Your task to perform on an android device: uninstall "NewsBreak: Local News & Alerts" Image 0: 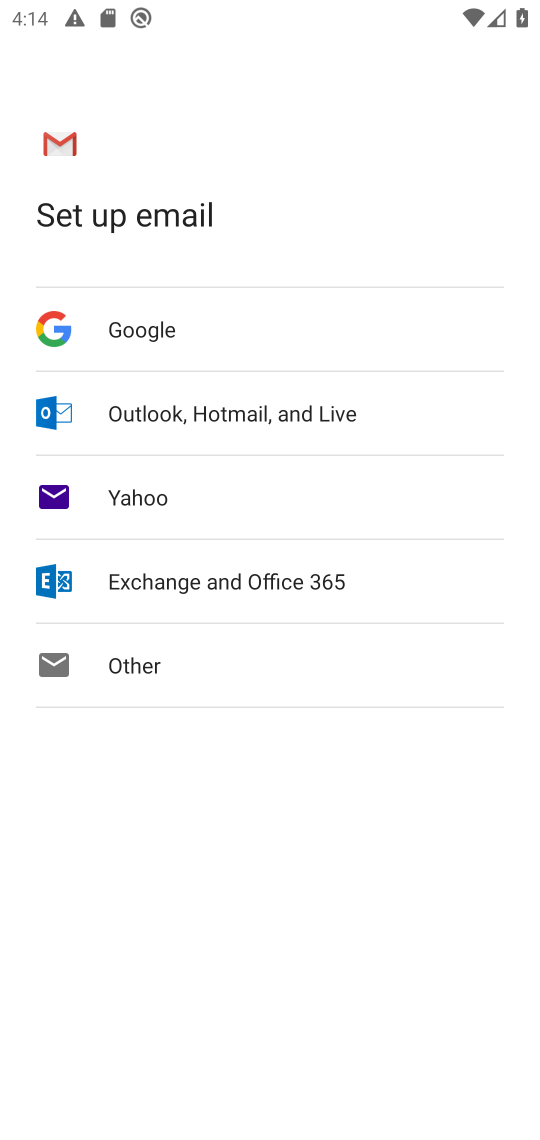
Step 0: press back button
Your task to perform on an android device: uninstall "NewsBreak: Local News & Alerts" Image 1: 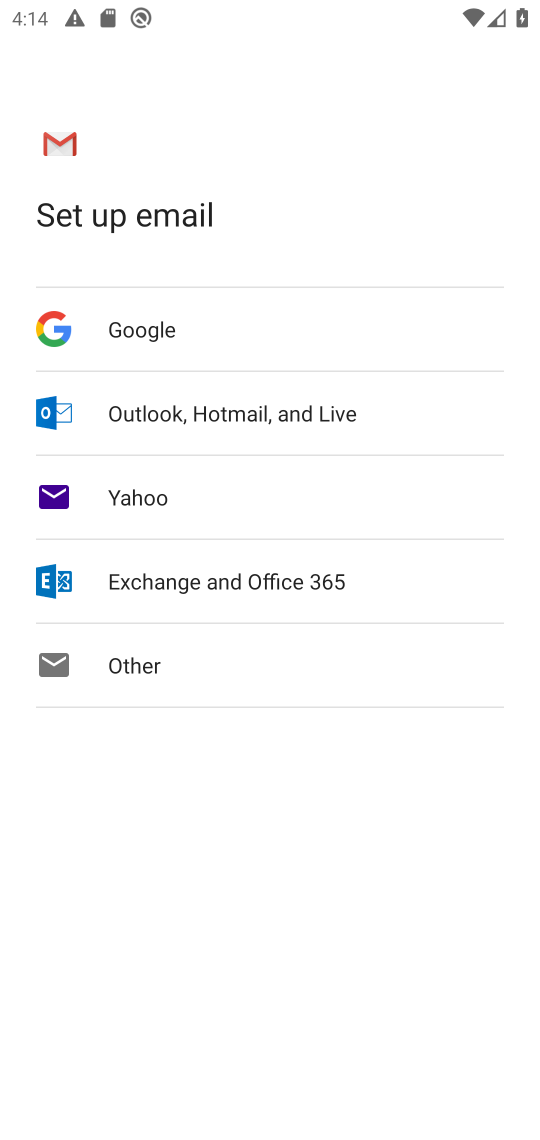
Step 1: press back button
Your task to perform on an android device: uninstall "NewsBreak: Local News & Alerts" Image 2: 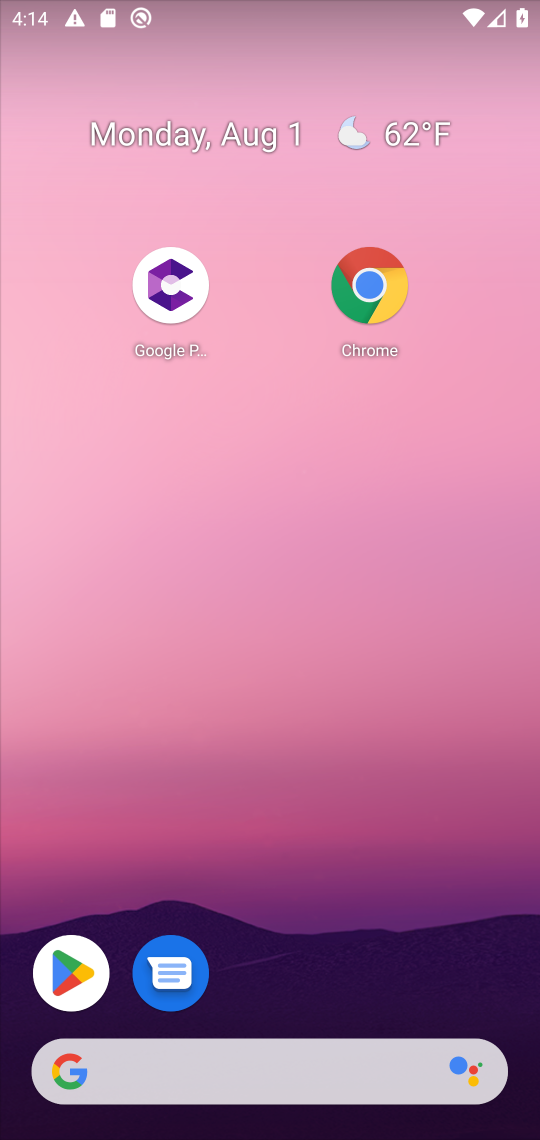
Step 2: drag from (284, 760) to (205, 249)
Your task to perform on an android device: uninstall "NewsBreak: Local News & Alerts" Image 3: 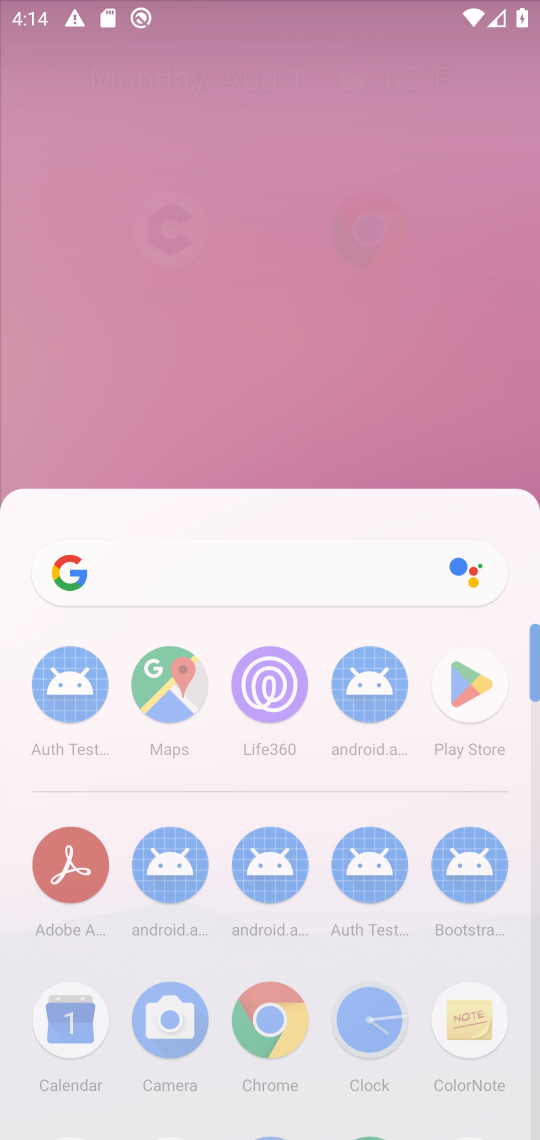
Step 3: drag from (176, 801) to (3, 191)
Your task to perform on an android device: uninstall "NewsBreak: Local News & Alerts" Image 4: 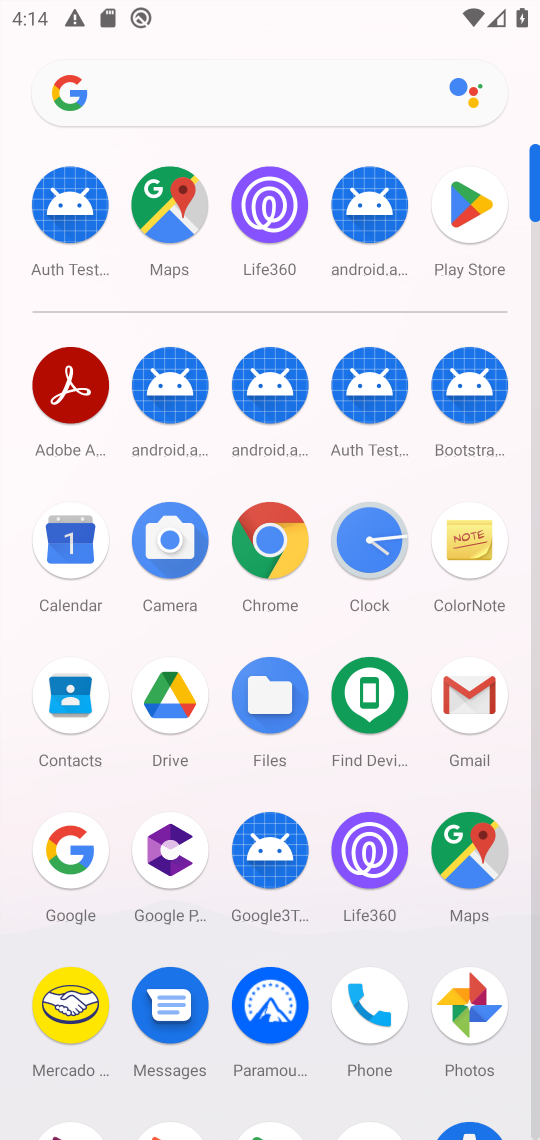
Step 4: drag from (188, 366) to (176, 135)
Your task to perform on an android device: uninstall "NewsBreak: Local News & Alerts" Image 5: 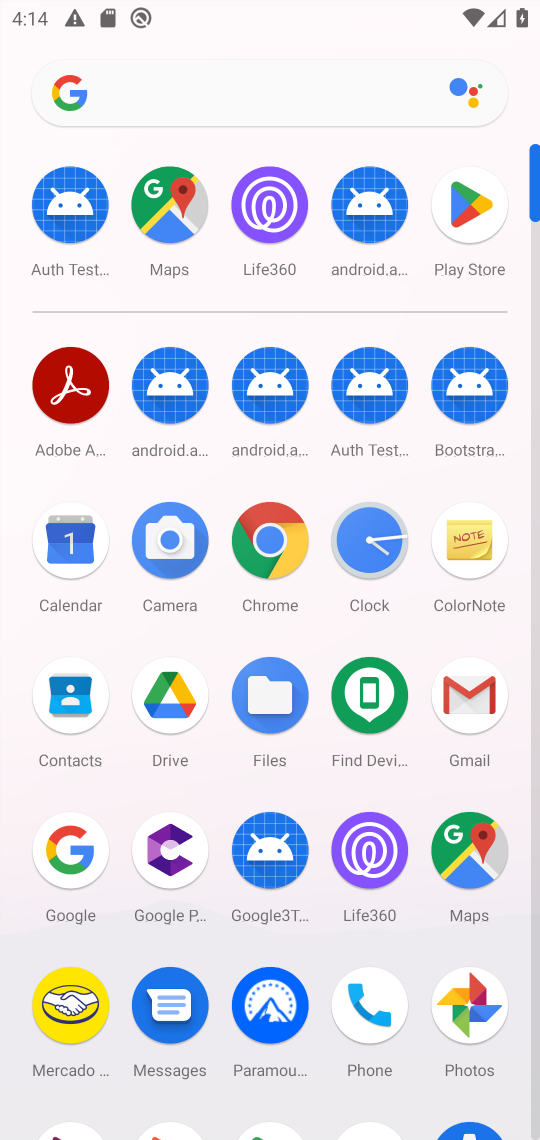
Step 5: click (468, 207)
Your task to perform on an android device: uninstall "NewsBreak: Local News & Alerts" Image 6: 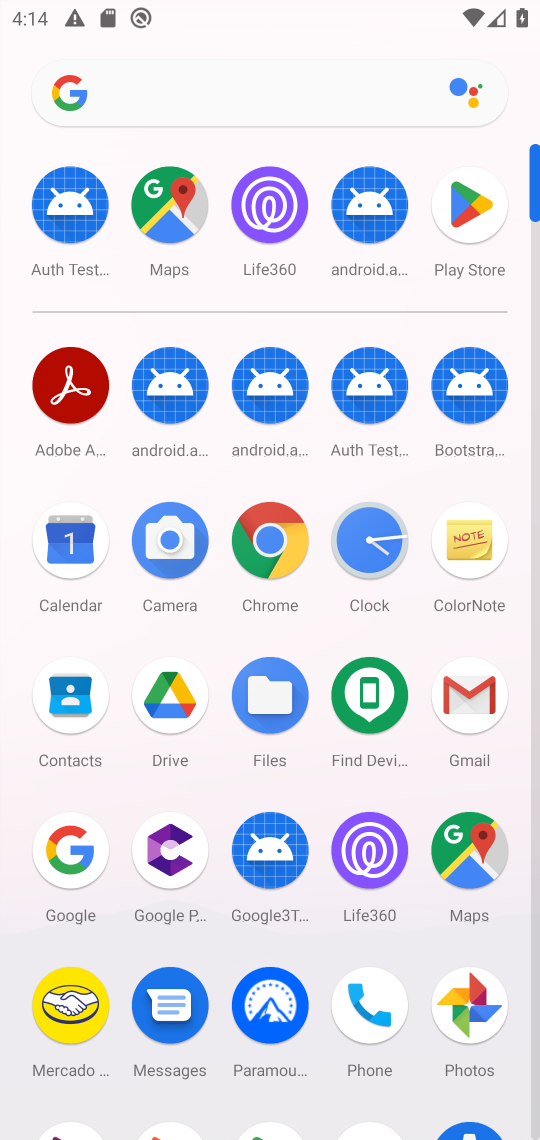
Step 6: click (464, 203)
Your task to perform on an android device: uninstall "NewsBreak: Local News & Alerts" Image 7: 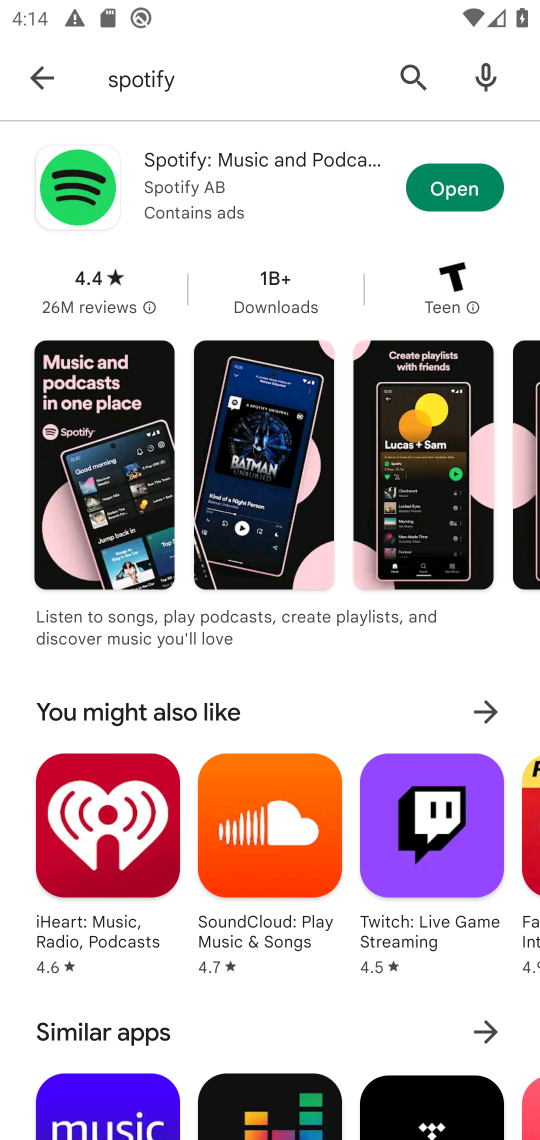
Step 7: click (180, 88)
Your task to perform on an android device: uninstall "NewsBreak: Local News & Alerts" Image 8: 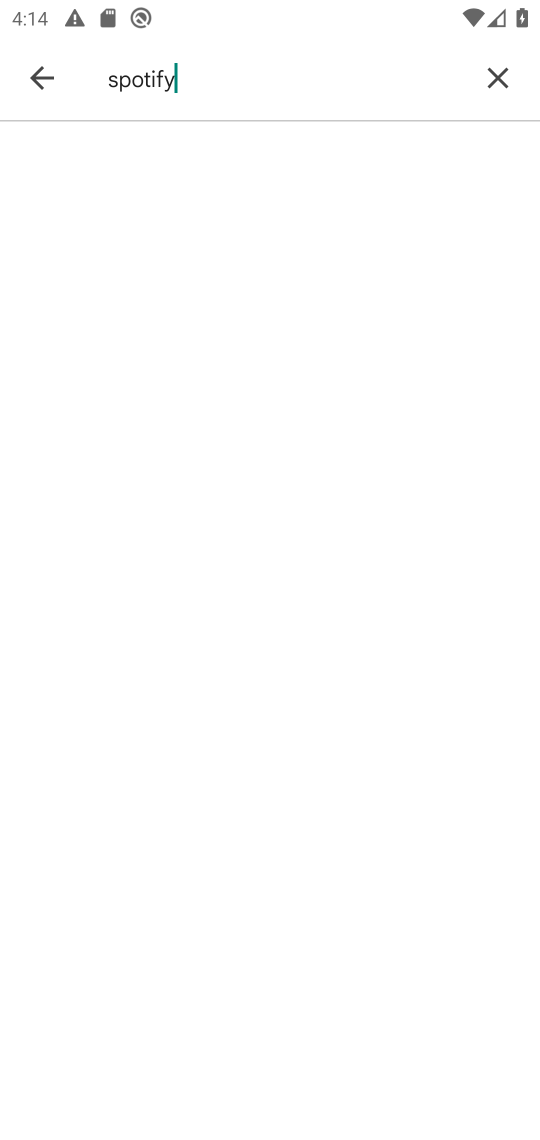
Step 8: click (47, 87)
Your task to perform on an android device: uninstall "NewsBreak: Local News & Alerts" Image 9: 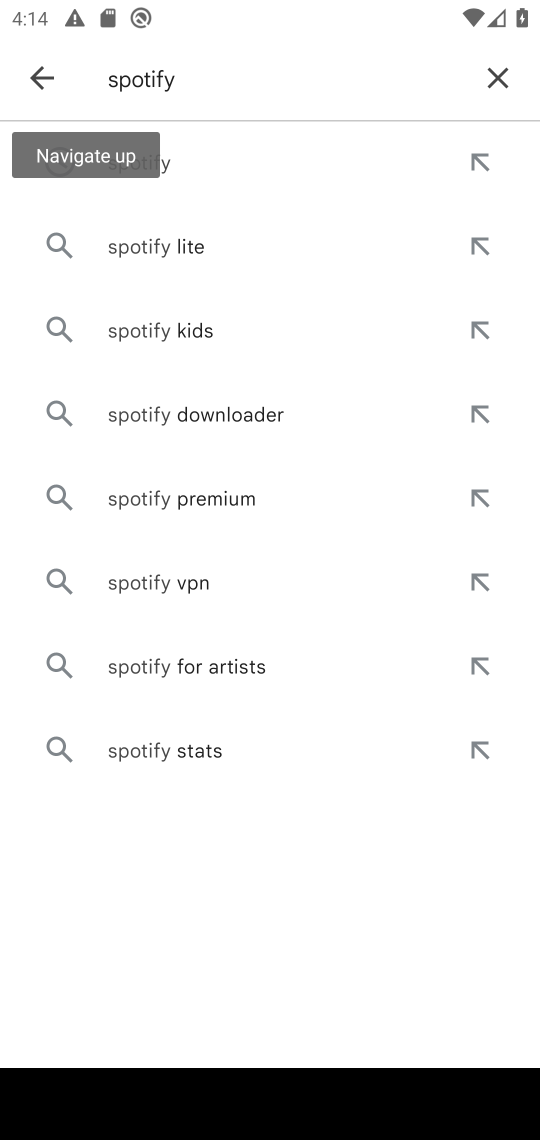
Step 9: click (487, 74)
Your task to perform on an android device: uninstall "NewsBreak: Local News & Alerts" Image 10: 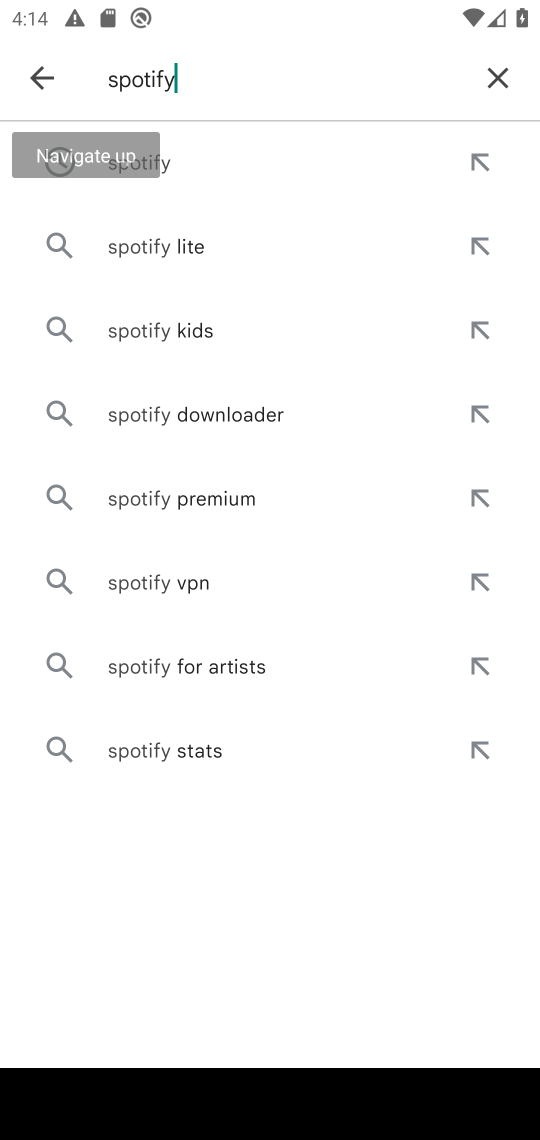
Step 10: click (489, 81)
Your task to perform on an android device: uninstall "NewsBreak: Local News & Alerts" Image 11: 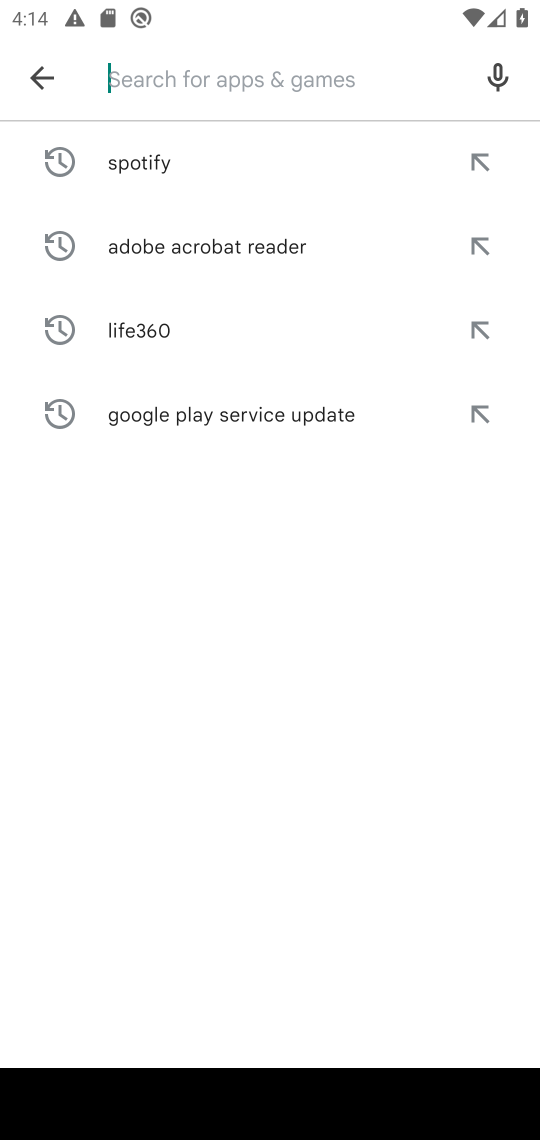
Step 11: click (489, 81)
Your task to perform on an android device: uninstall "NewsBreak: Local News & Alerts" Image 12: 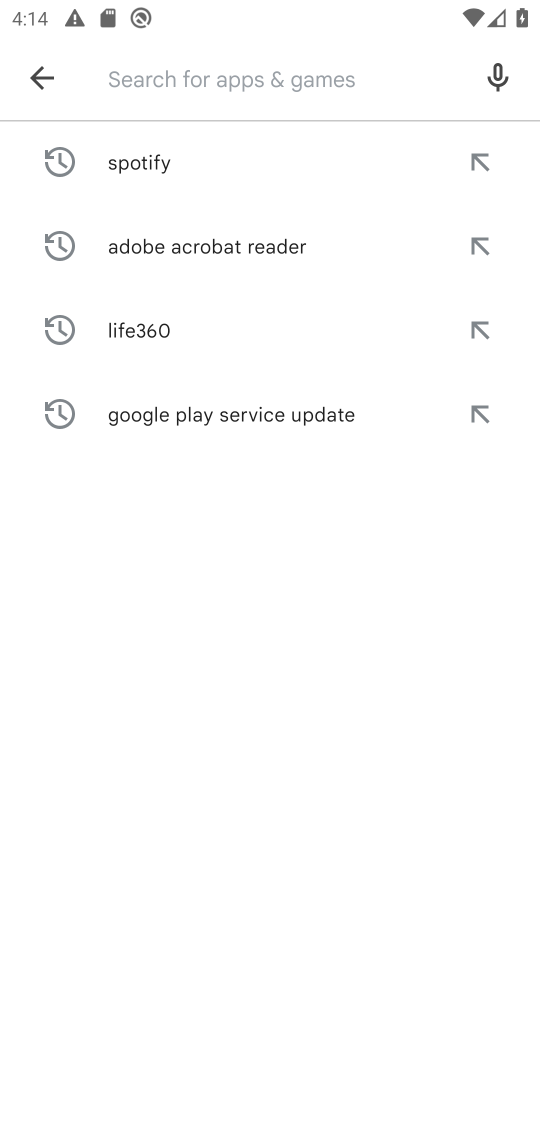
Step 12: click (490, 82)
Your task to perform on an android device: uninstall "NewsBreak: Local News & Alerts" Image 13: 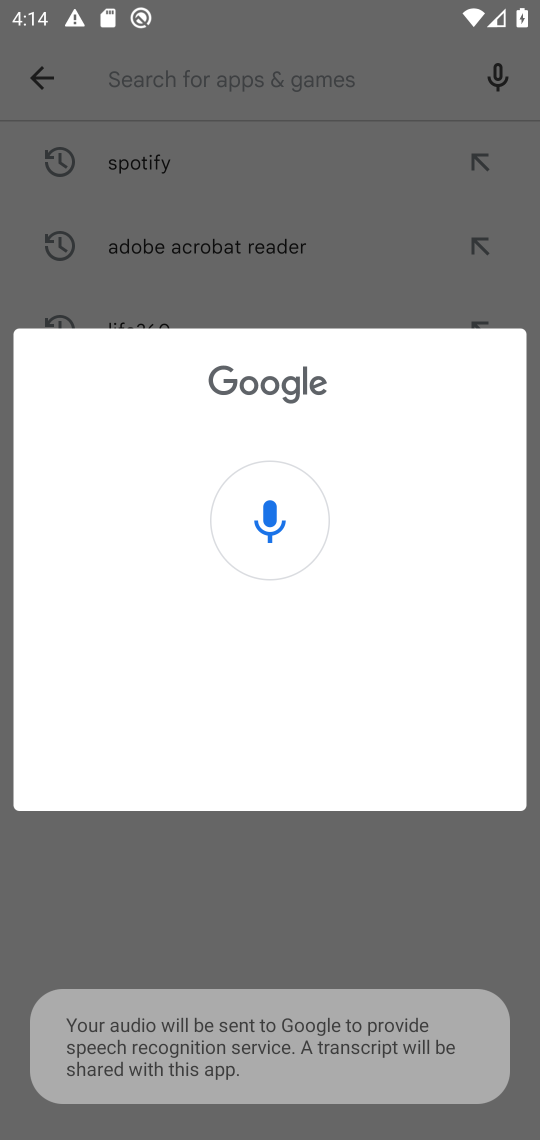
Step 13: drag from (139, 79) to (52, 83)
Your task to perform on an android device: uninstall "NewsBreak: Local News & Alerts" Image 14: 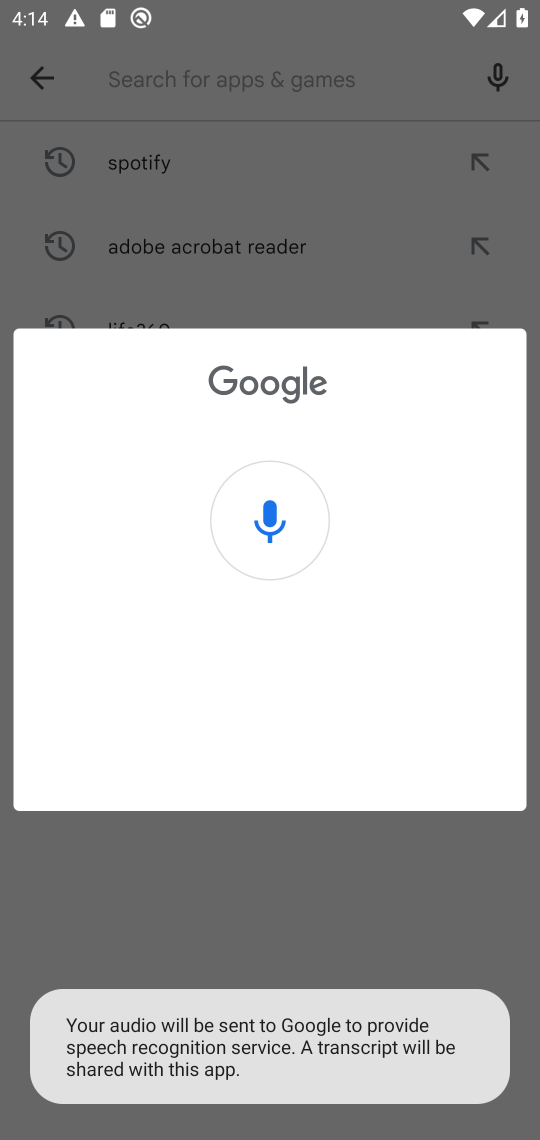
Step 14: click (123, 69)
Your task to perform on an android device: uninstall "NewsBreak: Local News & Alerts" Image 15: 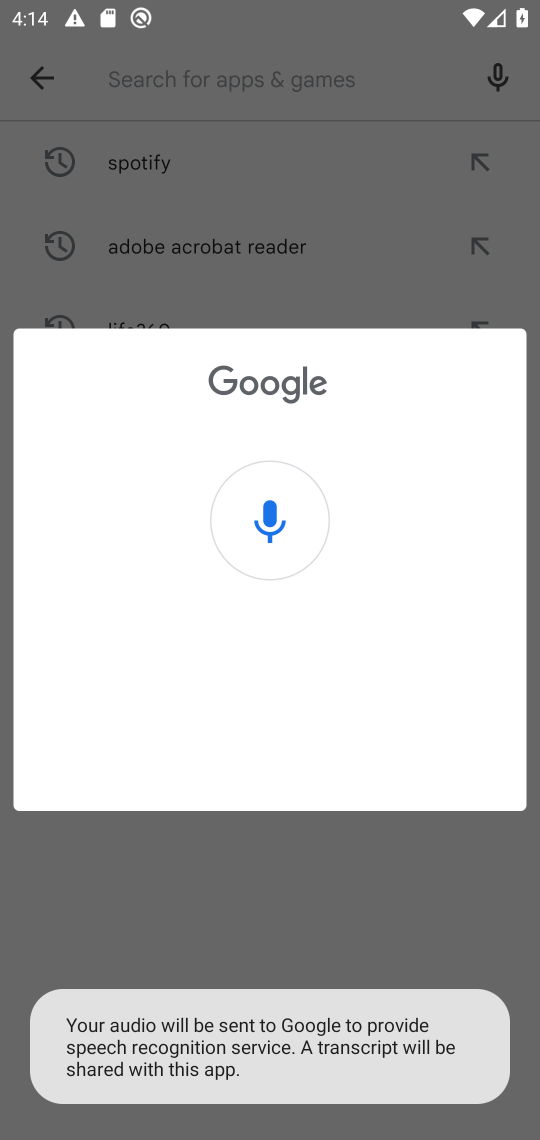
Step 15: click (123, 69)
Your task to perform on an android device: uninstall "NewsBreak: Local News & Alerts" Image 16: 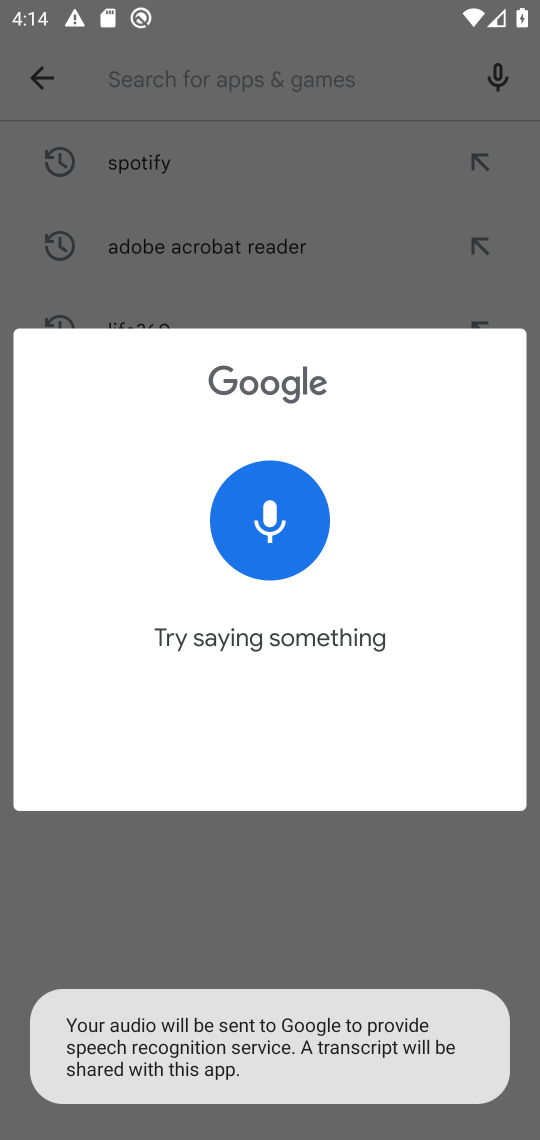
Step 16: click (130, 66)
Your task to perform on an android device: uninstall "NewsBreak: Local News & Alerts" Image 17: 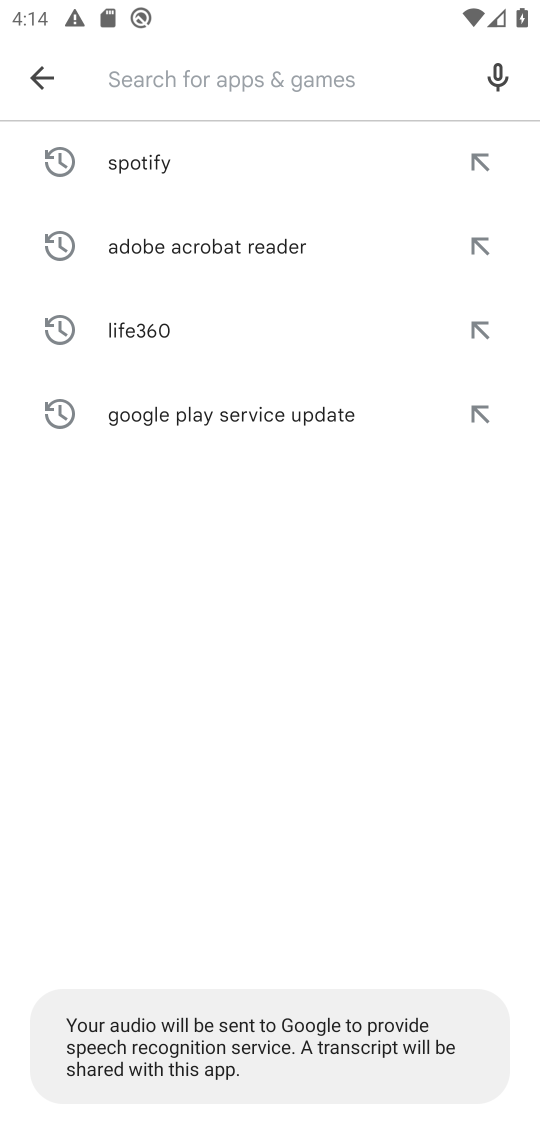
Step 17: click (146, 83)
Your task to perform on an android device: uninstall "NewsBreak: Local News & Alerts" Image 18: 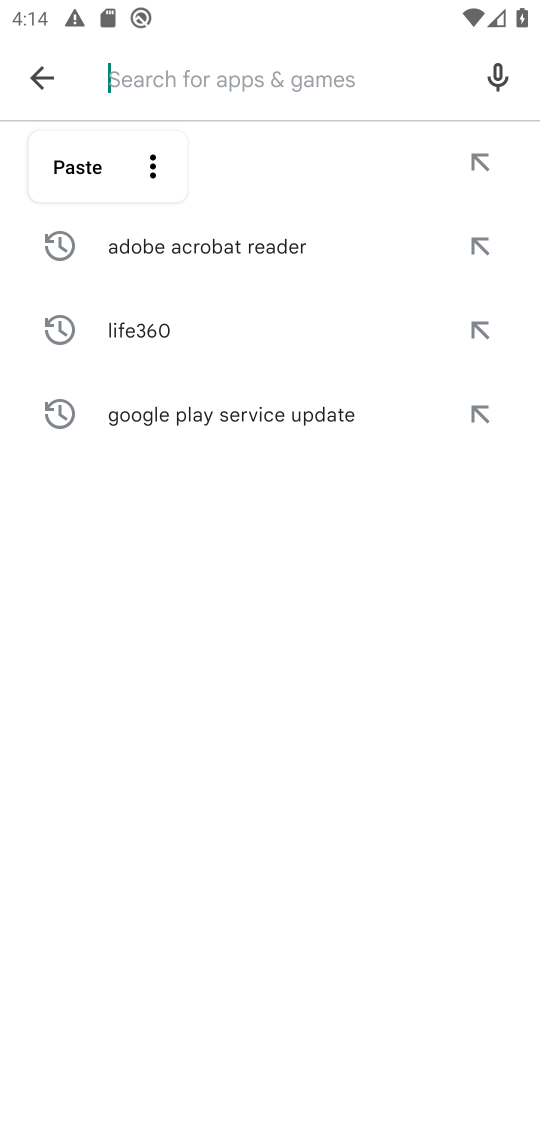
Step 18: type "news break"
Your task to perform on an android device: uninstall "NewsBreak: Local News & Alerts" Image 19: 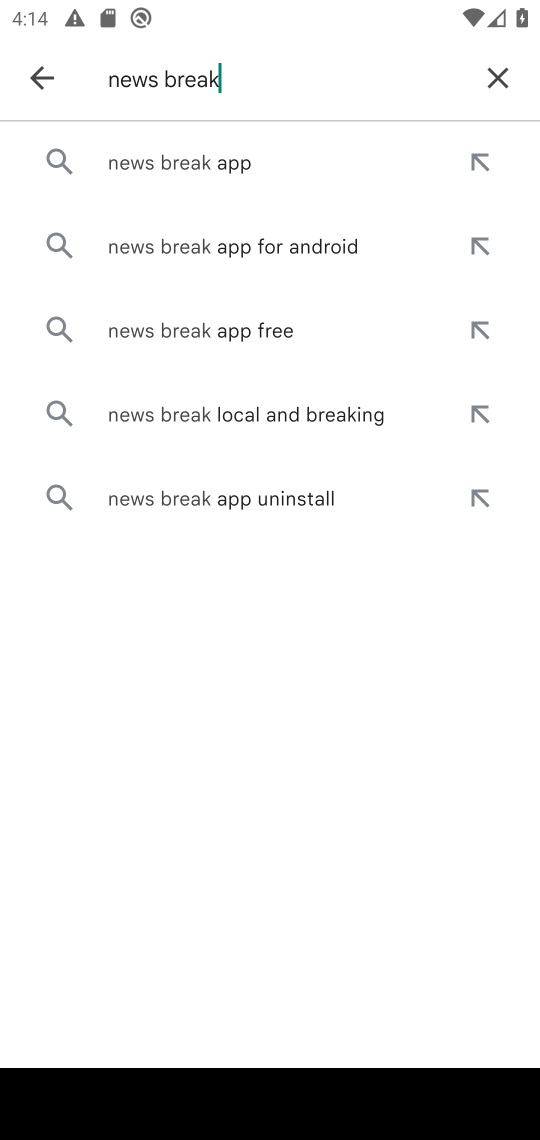
Step 19: click (211, 171)
Your task to perform on an android device: uninstall "NewsBreak: Local News & Alerts" Image 20: 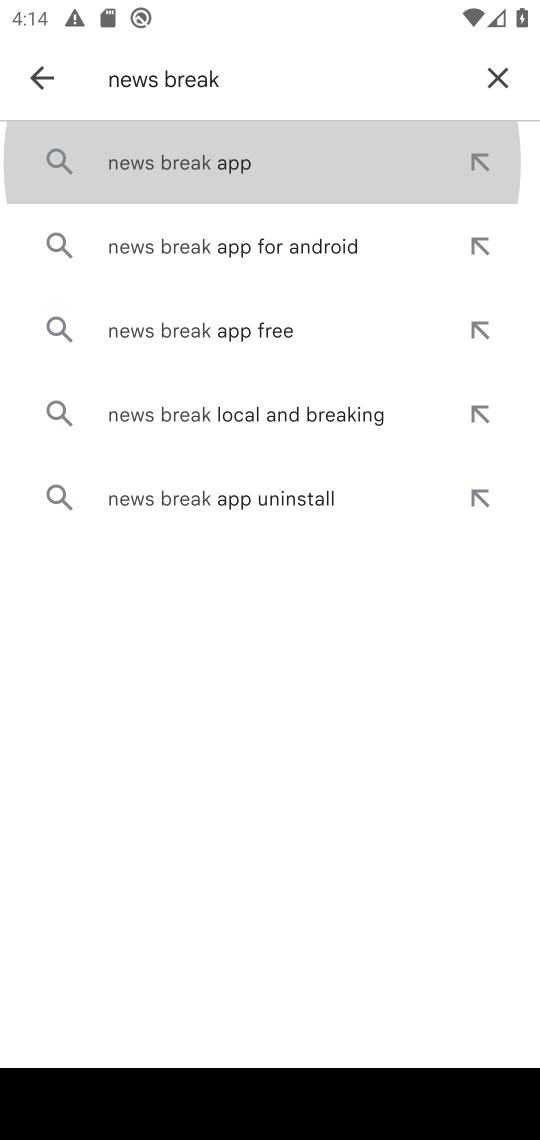
Step 20: click (213, 168)
Your task to perform on an android device: uninstall "NewsBreak: Local News & Alerts" Image 21: 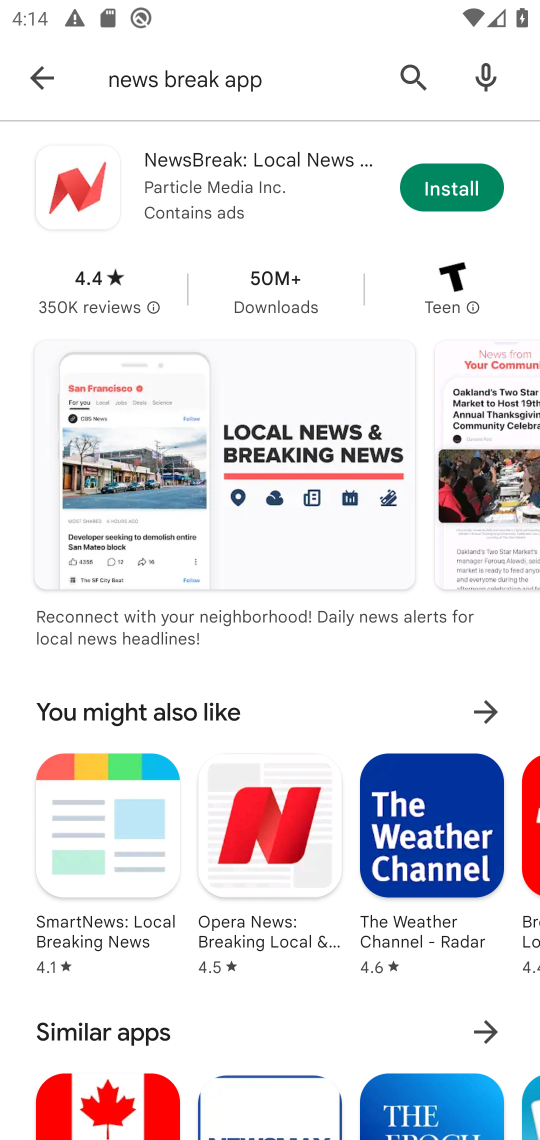
Step 21: click (453, 195)
Your task to perform on an android device: uninstall "NewsBreak: Local News & Alerts" Image 22: 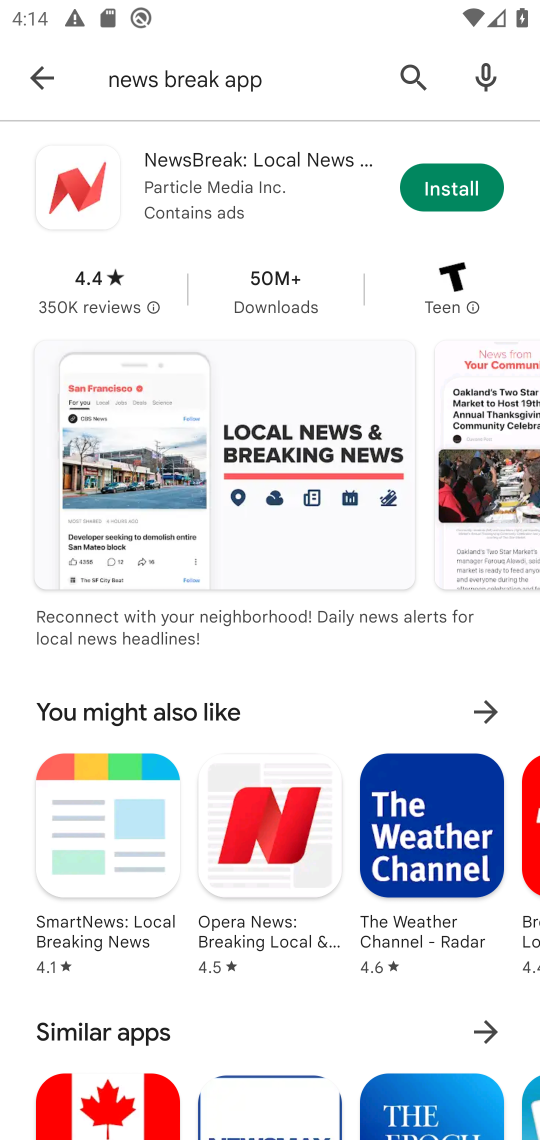
Step 22: click (449, 201)
Your task to perform on an android device: uninstall "NewsBreak: Local News & Alerts" Image 23: 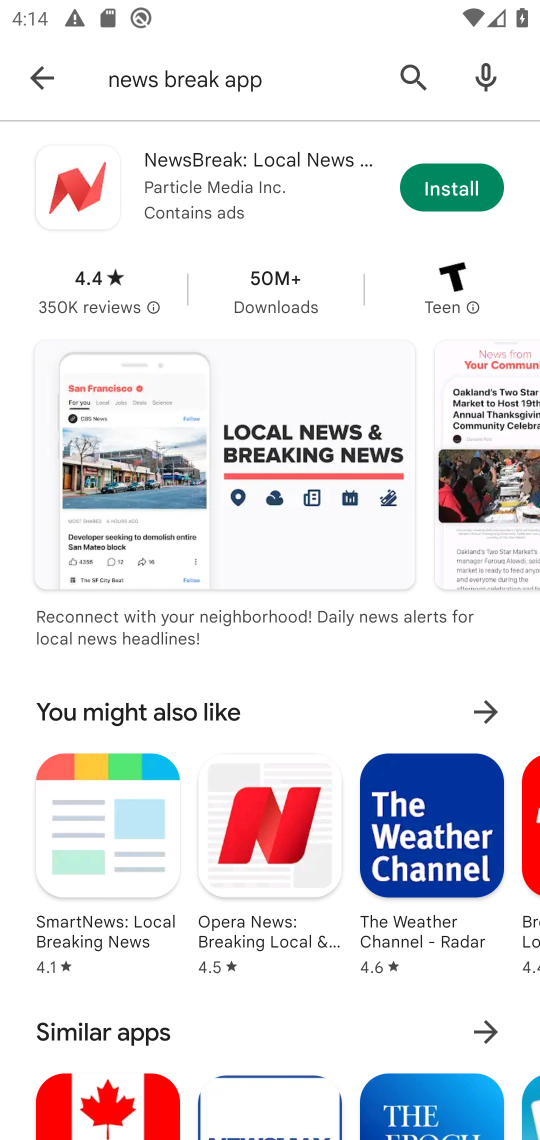
Step 23: click (443, 186)
Your task to perform on an android device: uninstall "NewsBreak: Local News & Alerts" Image 24: 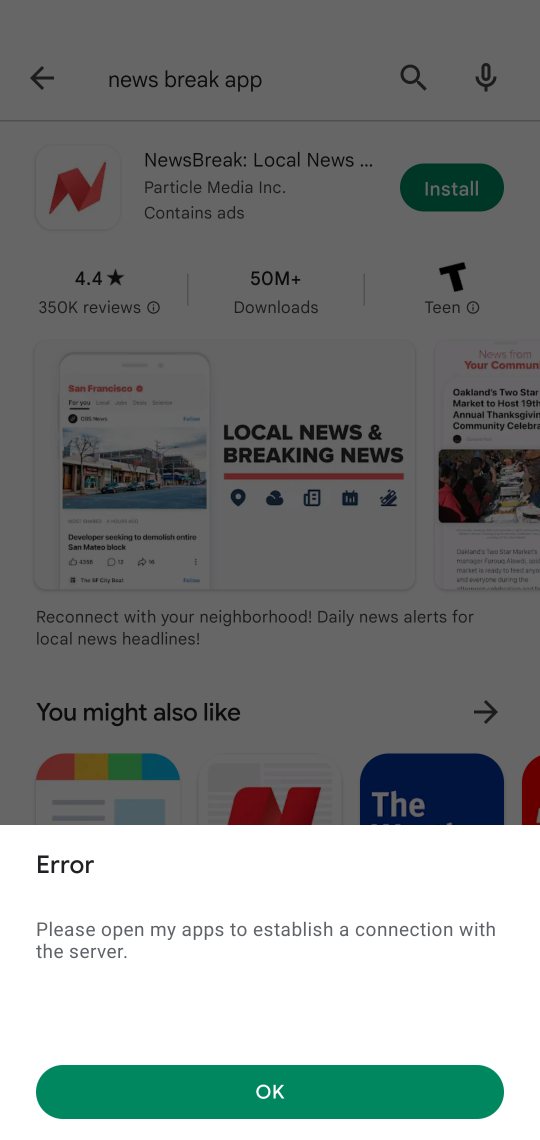
Step 24: click (275, 1092)
Your task to perform on an android device: uninstall "NewsBreak: Local News & Alerts" Image 25: 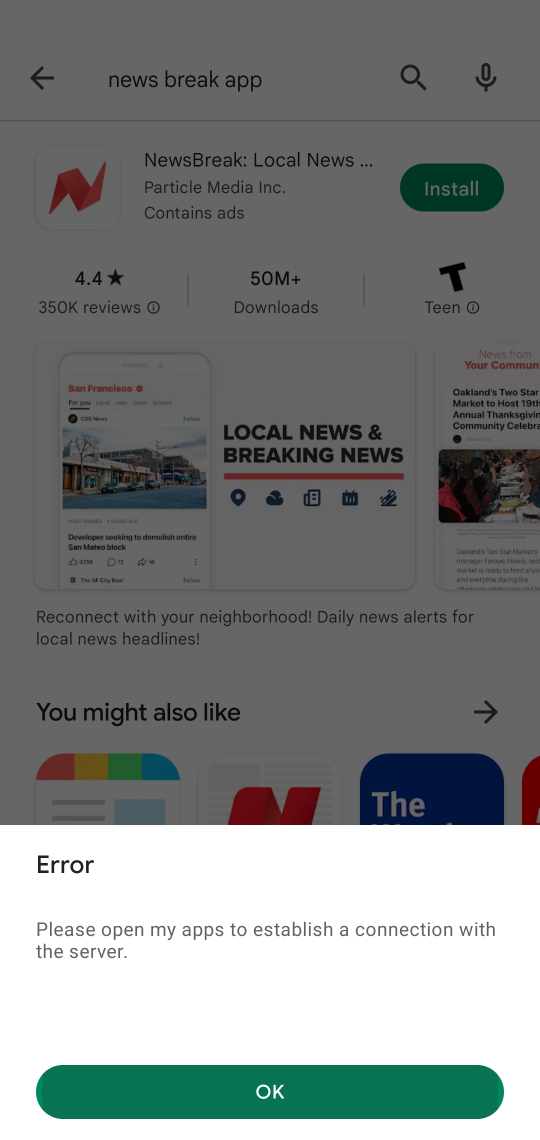
Step 25: click (282, 1090)
Your task to perform on an android device: uninstall "NewsBreak: Local News & Alerts" Image 26: 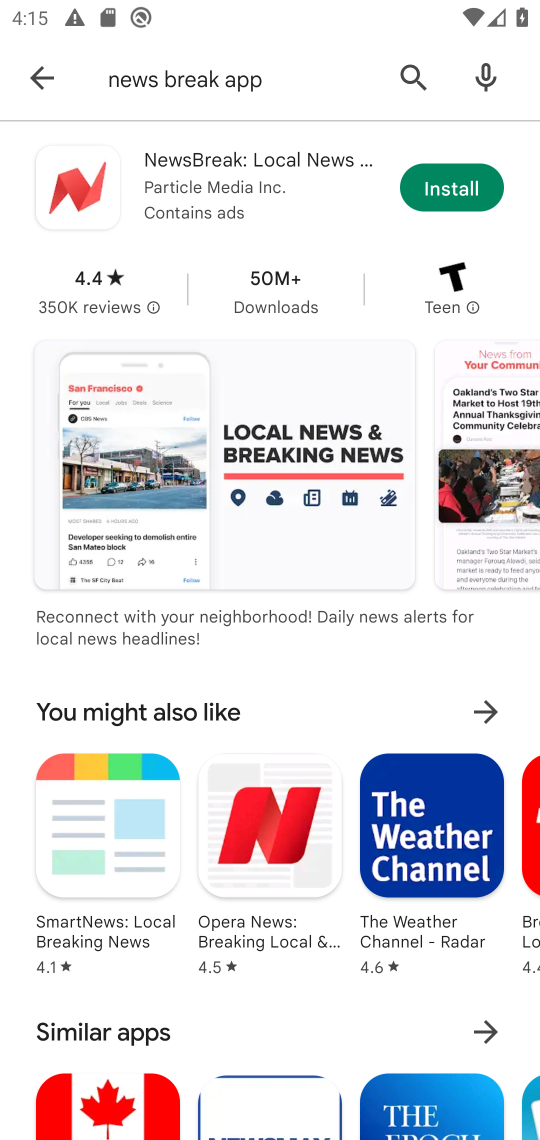
Step 26: click (282, 1090)
Your task to perform on an android device: uninstall "NewsBreak: Local News & Alerts" Image 27: 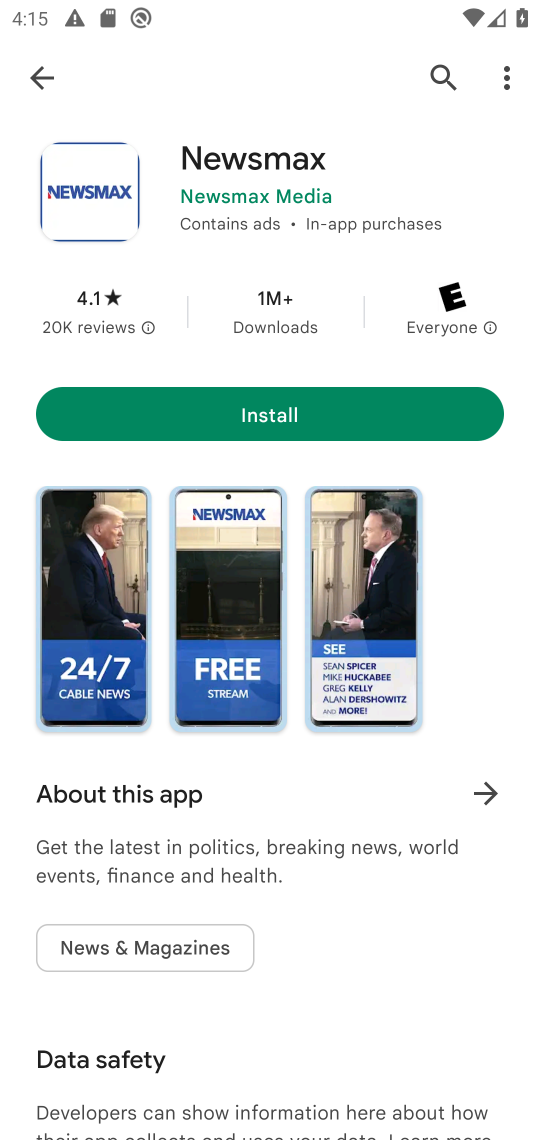
Step 27: click (274, 428)
Your task to perform on an android device: uninstall "NewsBreak: Local News & Alerts" Image 28: 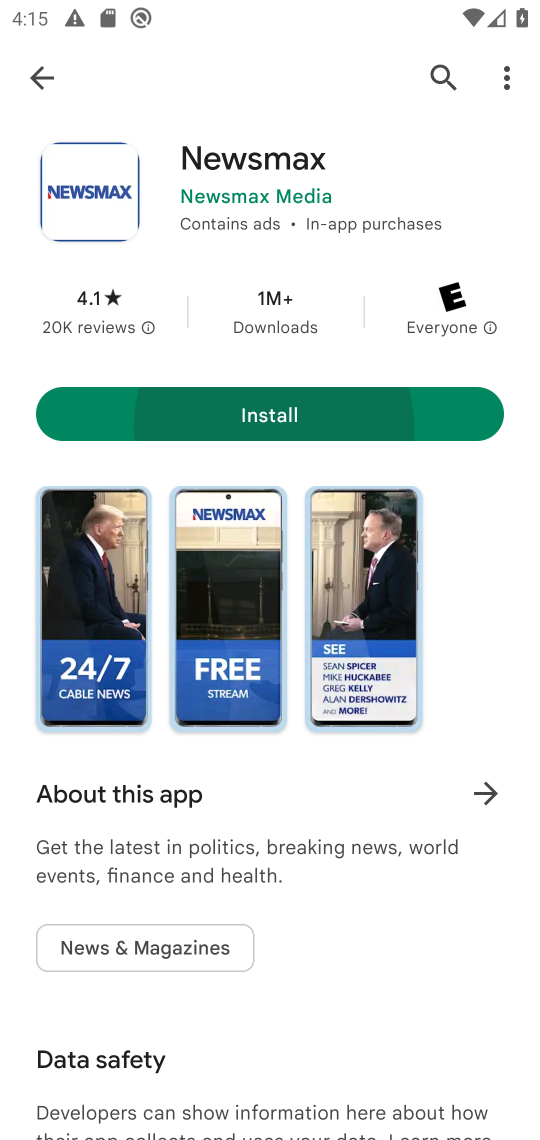
Step 28: click (273, 430)
Your task to perform on an android device: uninstall "NewsBreak: Local News & Alerts" Image 29: 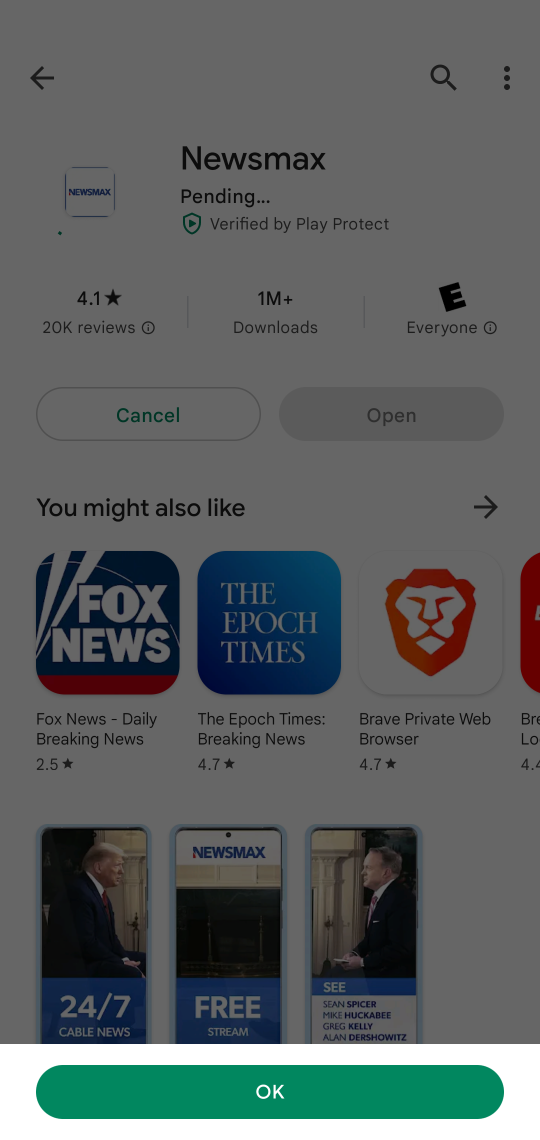
Step 29: click (31, 64)
Your task to perform on an android device: uninstall "NewsBreak: Local News & Alerts" Image 30: 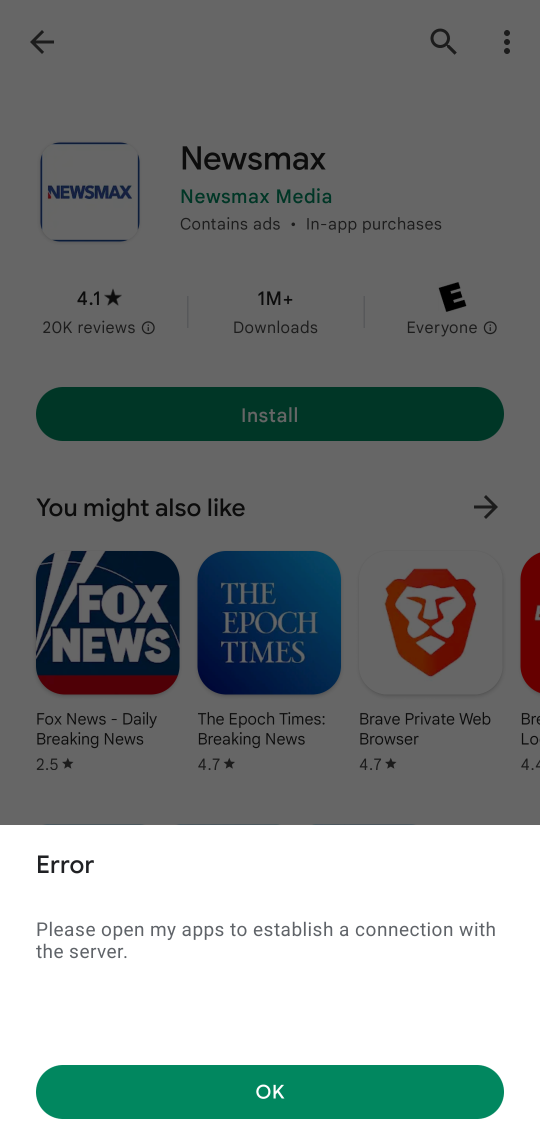
Step 30: click (153, 414)
Your task to perform on an android device: uninstall "NewsBreak: Local News & Alerts" Image 31: 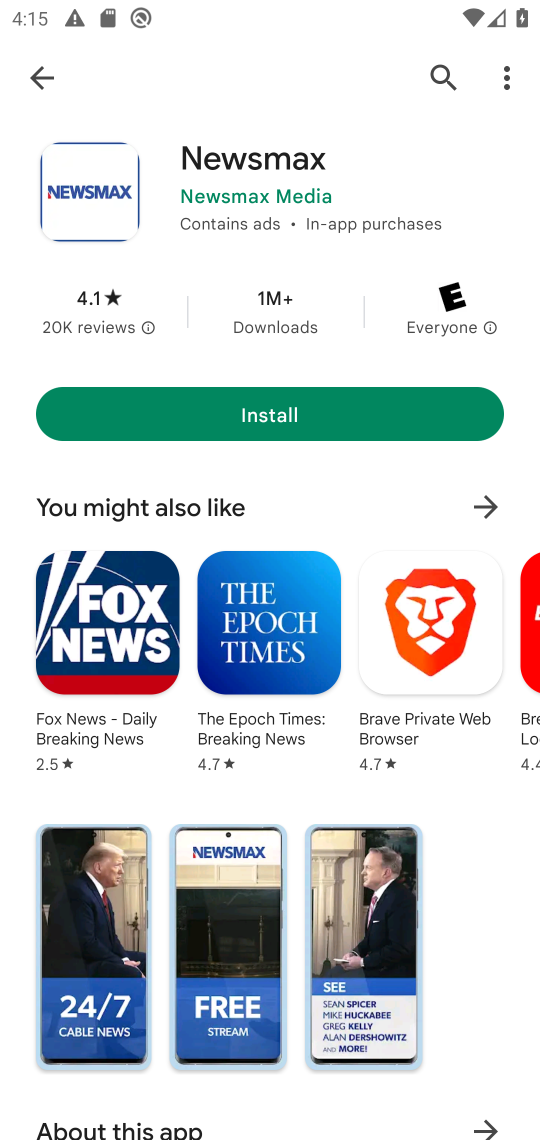
Step 31: click (151, 415)
Your task to perform on an android device: uninstall "NewsBreak: Local News & Alerts" Image 32: 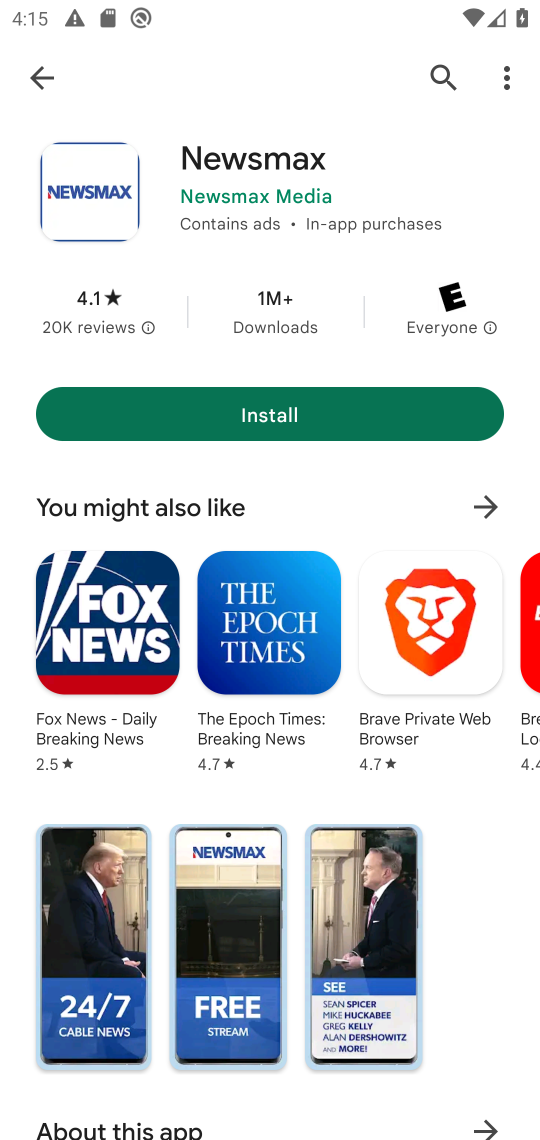
Step 32: click (151, 415)
Your task to perform on an android device: uninstall "NewsBreak: Local News & Alerts" Image 33: 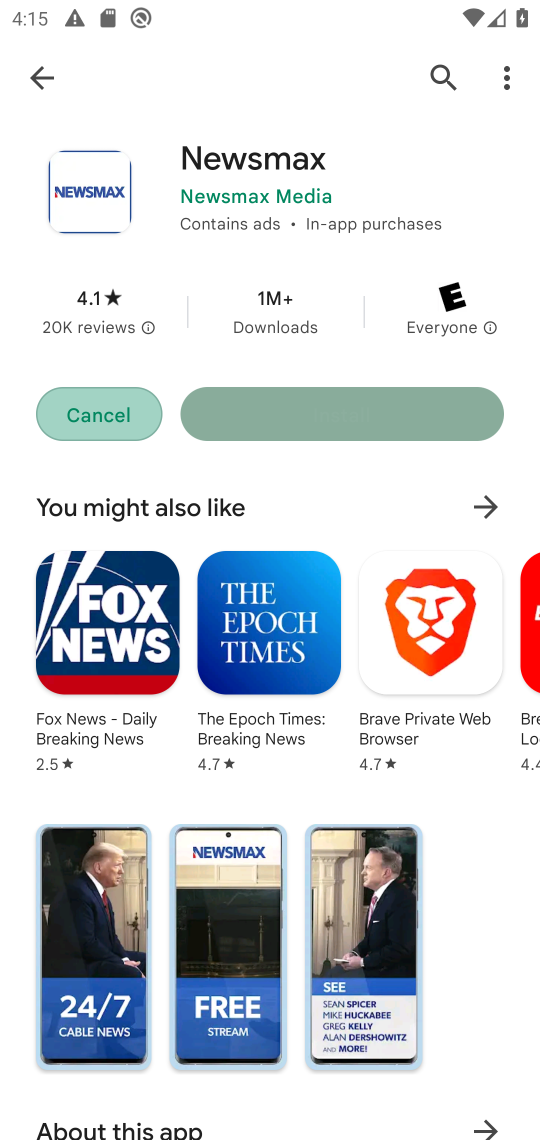
Step 33: click (37, 75)
Your task to perform on an android device: uninstall "NewsBreak: Local News & Alerts" Image 34: 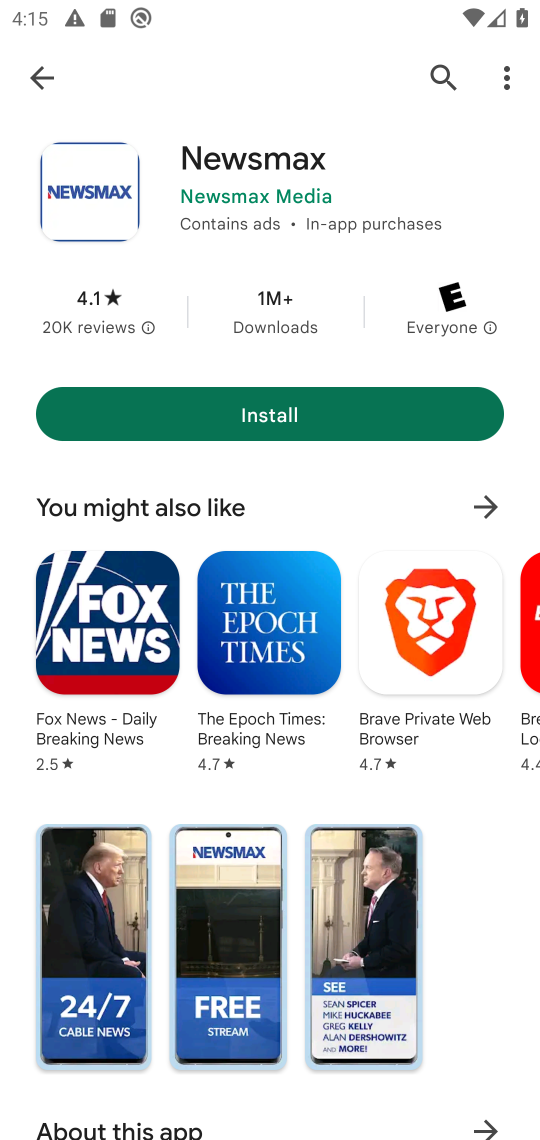
Step 34: click (37, 75)
Your task to perform on an android device: uninstall "NewsBreak: Local News & Alerts" Image 35: 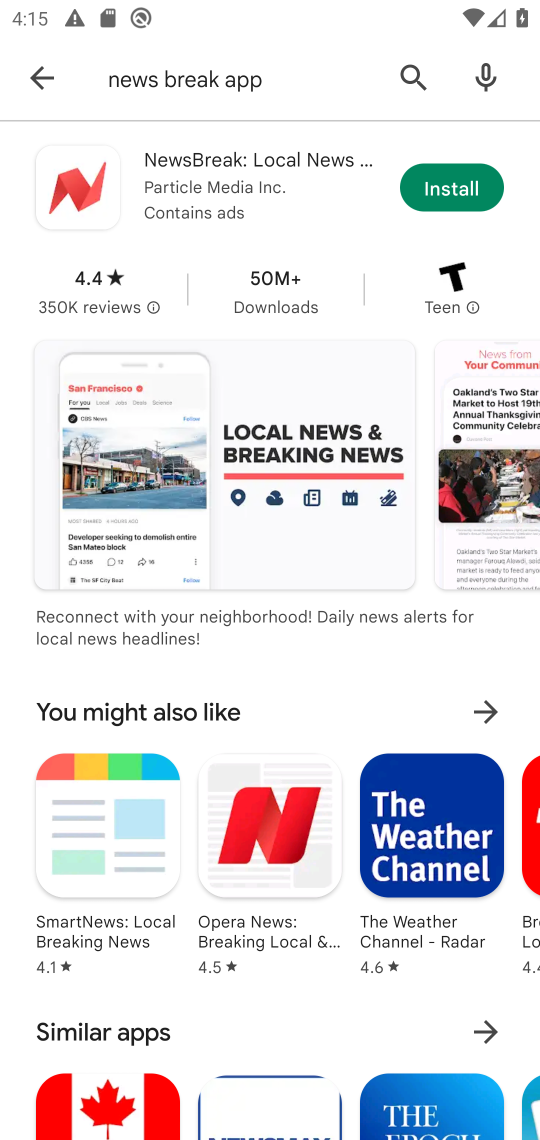
Step 35: click (460, 184)
Your task to perform on an android device: uninstall "NewsBreak: Local News & Alerts" Image 36: 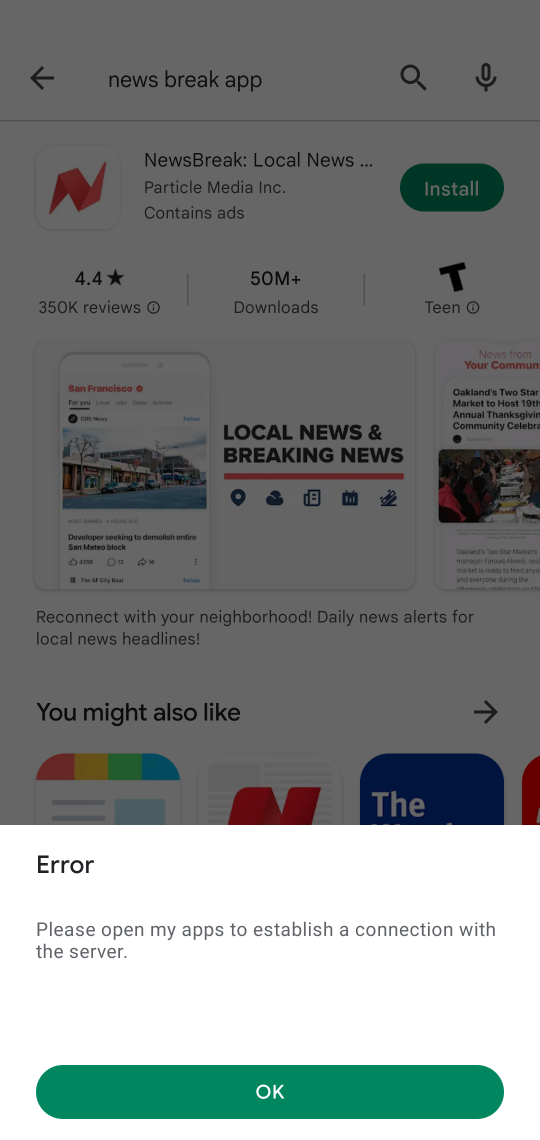
Step 36: click (275, 1074)
Your task to perform on an android device: uninstall "NewsBreak: Local News & Alerts" Image 37: 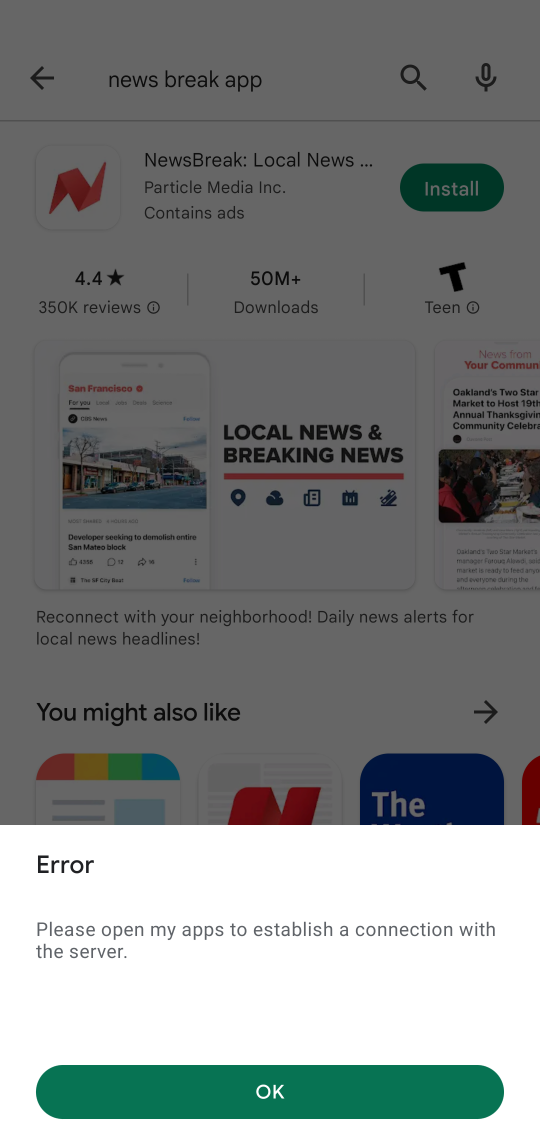
Step 37: click (275, 1074)
Your task to perform on an android device: uninstall "NewsBreak: Local News & Alerts" Image 38: 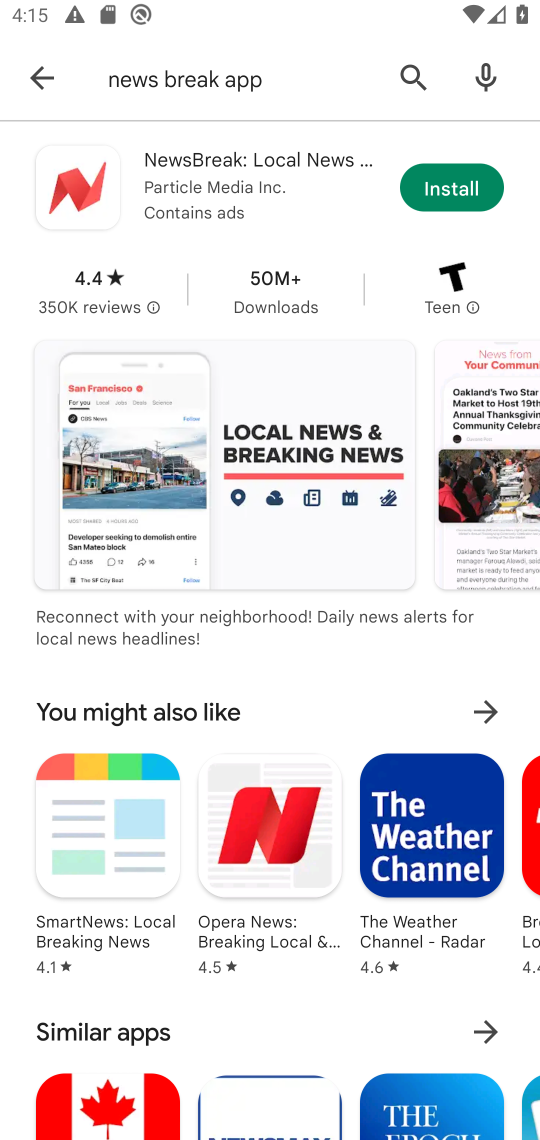
Step 38: click (277, 1075)
Your task to perform on an android device: uninstall "NewsBreak: Local News & Alerts" Image 39: 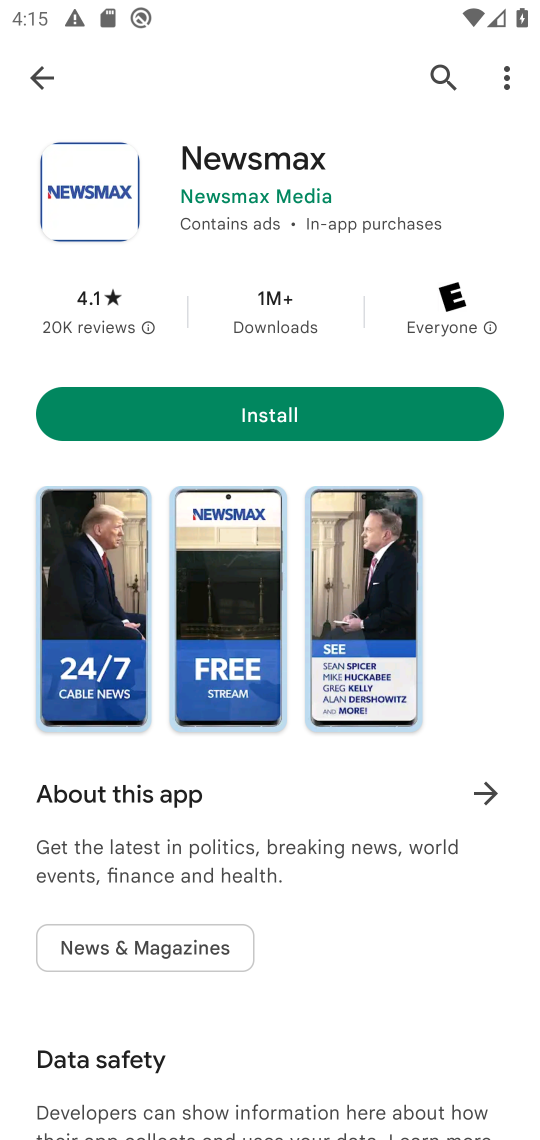
Step 39: click (38, 74)
Your task to perform on an android device: uninstall "NewsBreak: Local News & Alerts" Image 40: 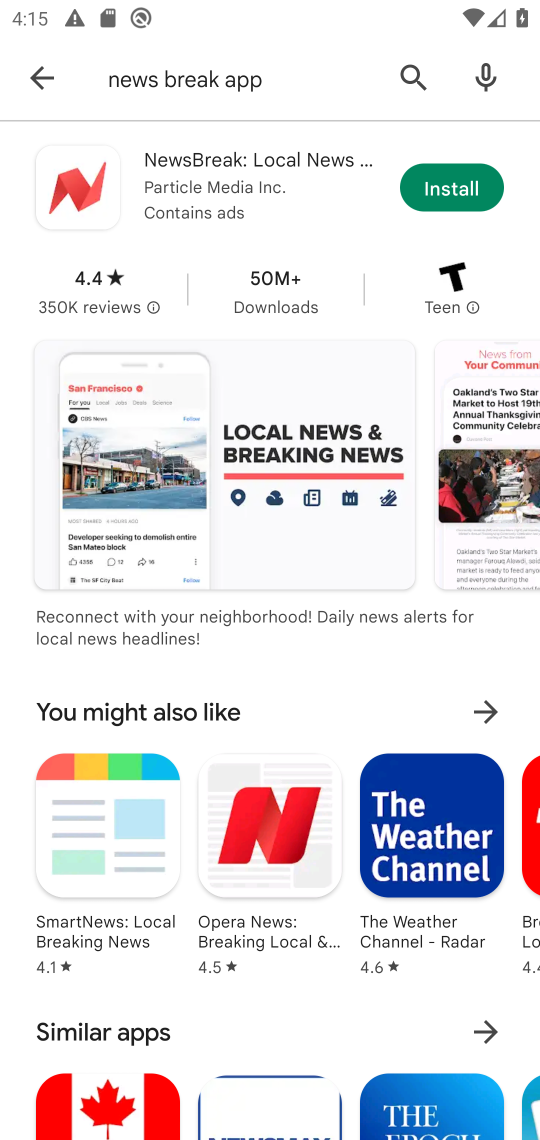
Step 40: click (452, 178)
Your task to perform on an android device: uninstall "NewsBreak: Local News & Alerts" Image 41: 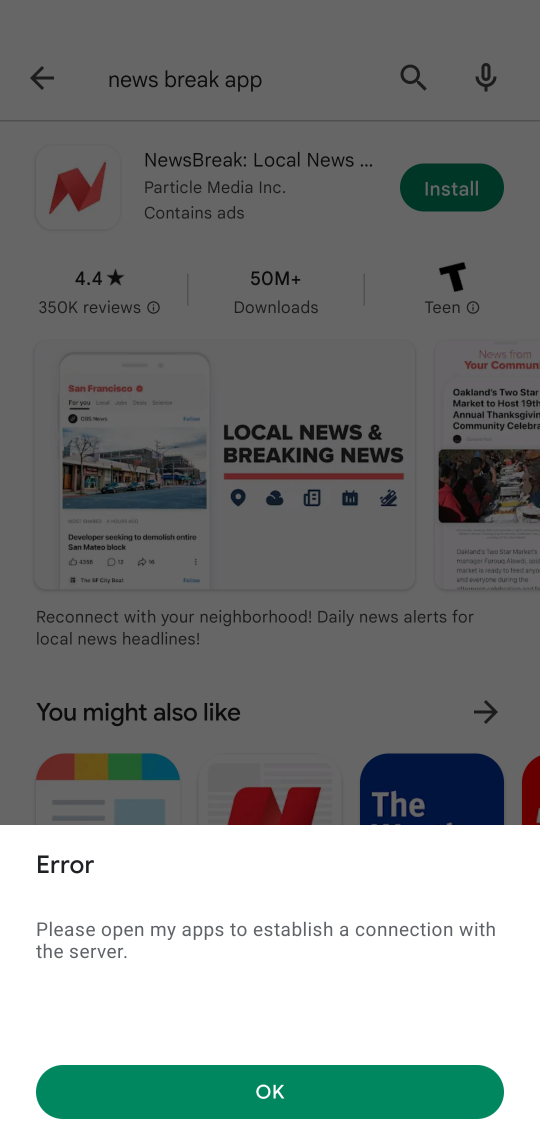
Step 41: click (269, 1101)
Your task to perform on an android device: uninstall "NewsBreak: Local News & Alerts" Image 42: 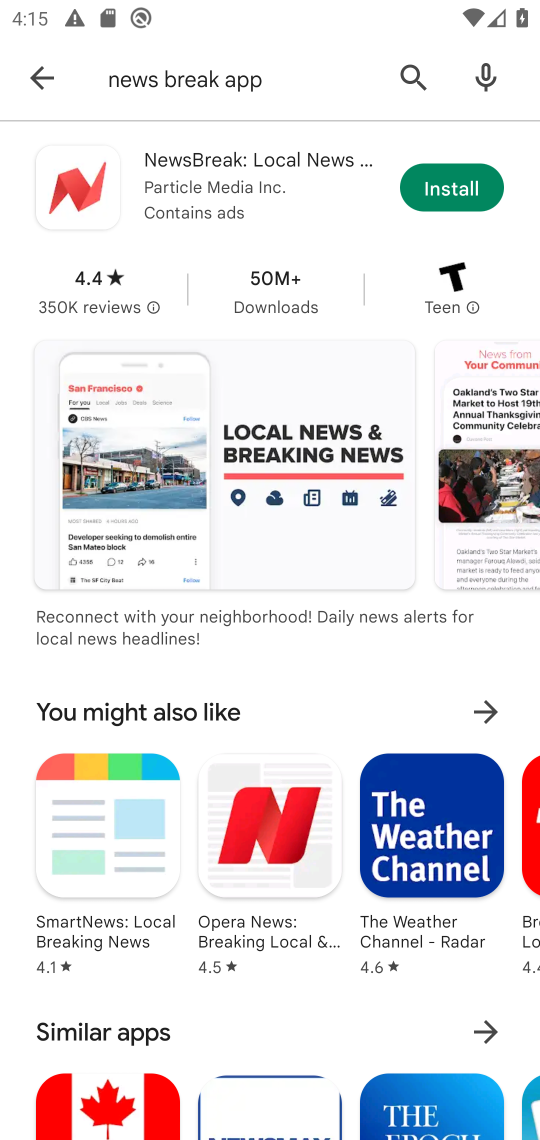
Step 42: click (434, 183)
Your task to perform on an android device: uninstall "NewsBreak: Local News & Alerts" Image 43: 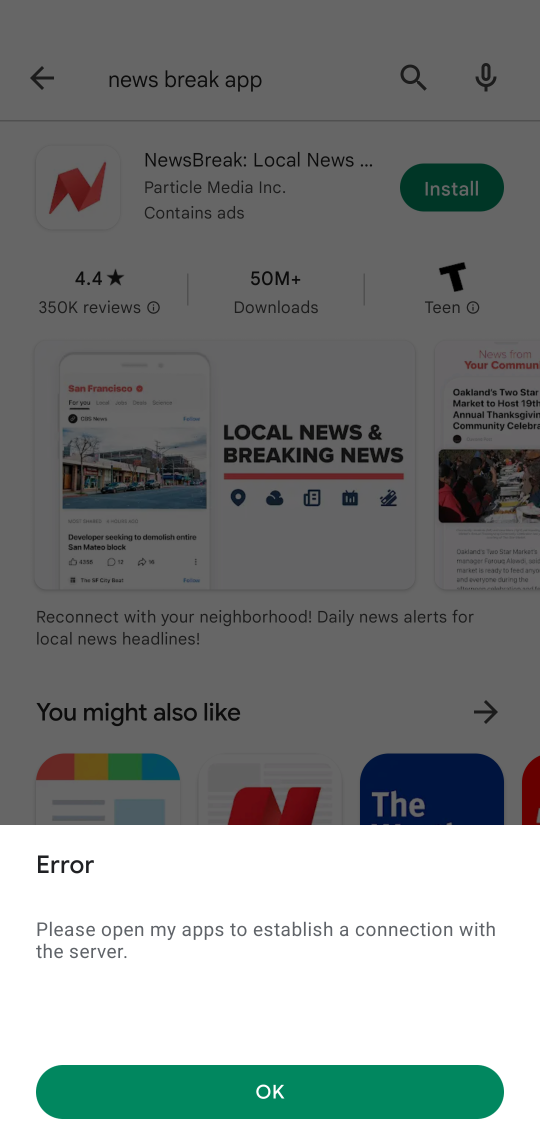
Step 43: task complete